Your task to perform on an android device: What is the recent news? Image 0: 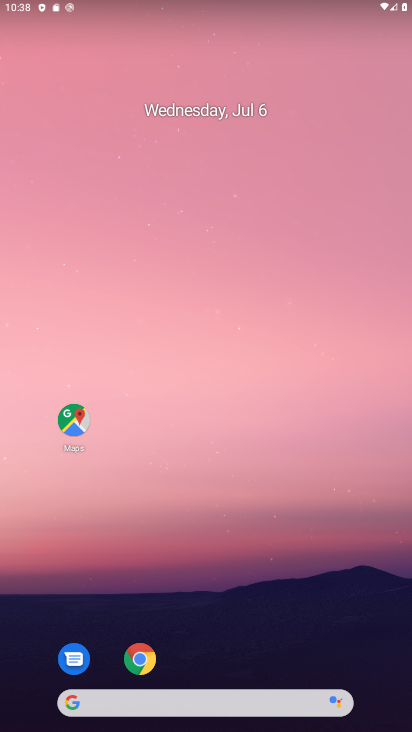
Step 0: drag from (210, 678) to (183, 6)
Your task to perform on an android device: What is the recent news? Image 1: 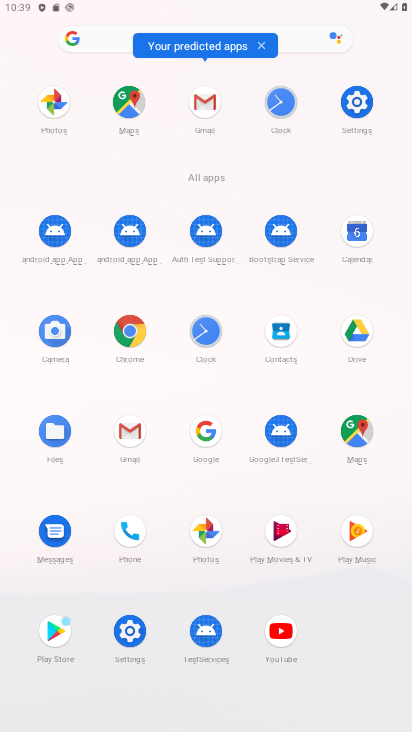
Step 1: click (211, 452)
Your task to perform on an android device: What is the recent news? Image 2: 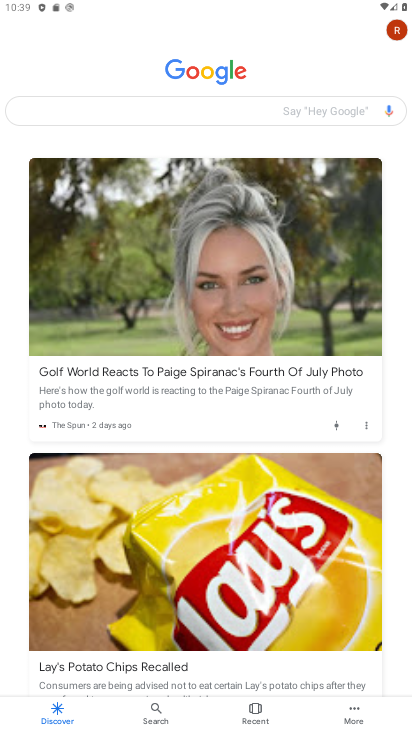
Step 2: click (266, 115)
Your task to perform on an android device: What is the recent news? Image 3: 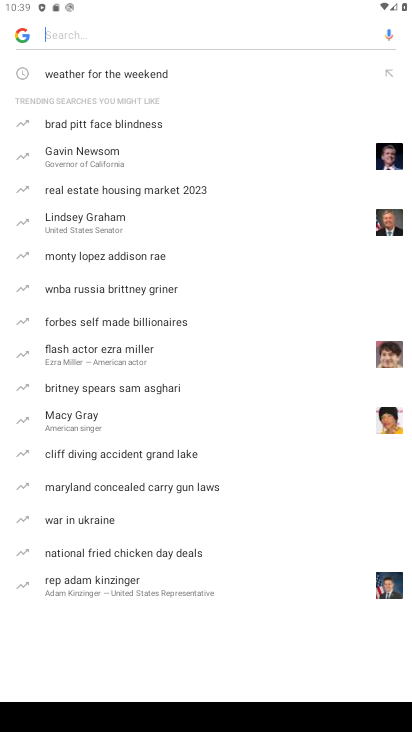
Step 3: type "recent news"
Your task to perform on an android device: What is the recent news? Image 4: 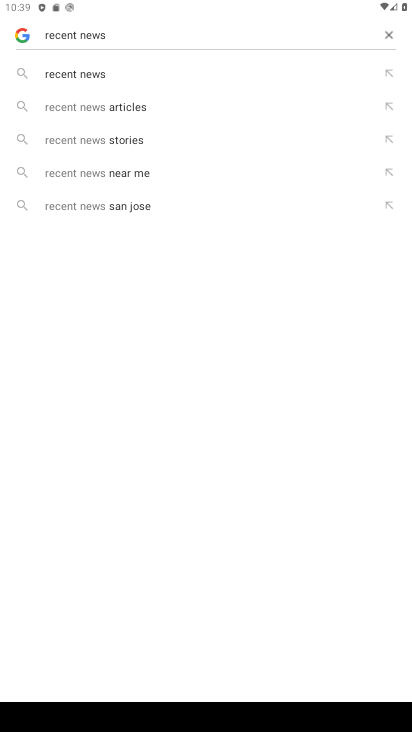
Step 4: click (80, 73)
Your task to perform on an android device: What is the recent news? Image 5: 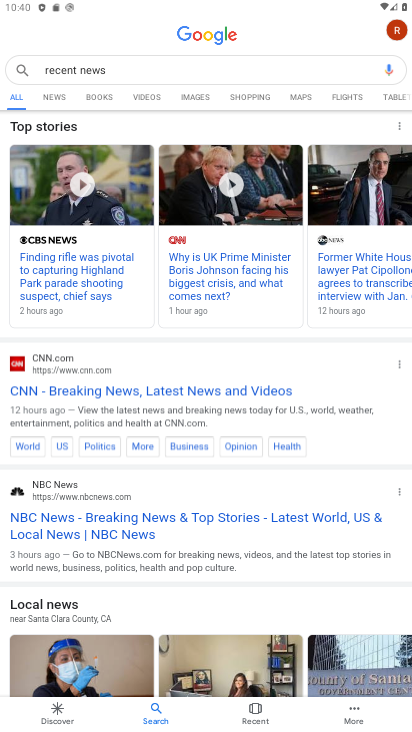
Step 5: task complete